Your task to perform on an android device: install app "Google Maps" Image 0: 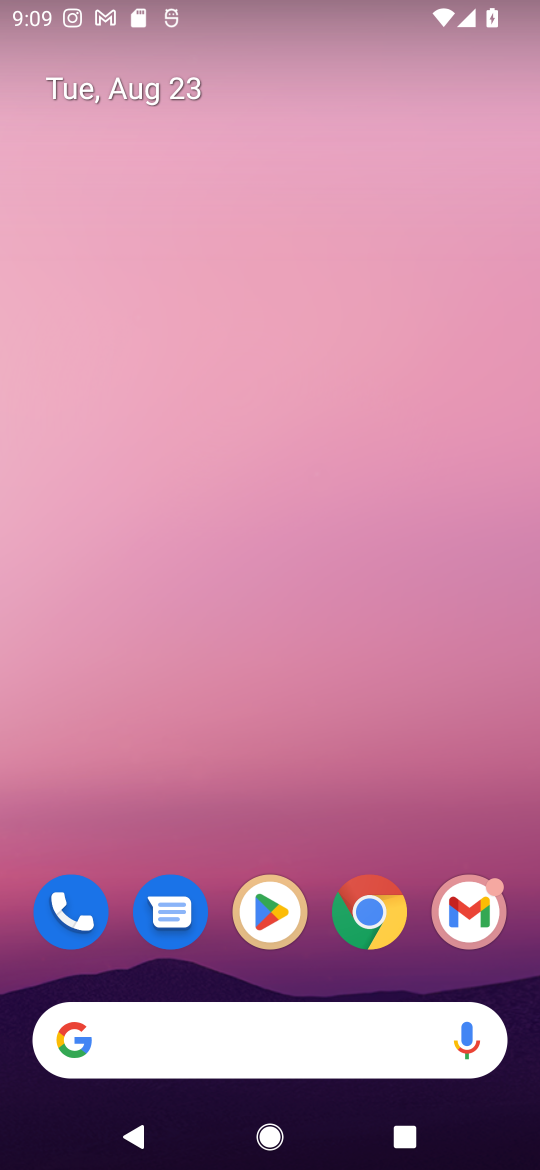
Step 0: click (263, 915)
Your task to perform on an android device: install app "Google Maps" Image 1: 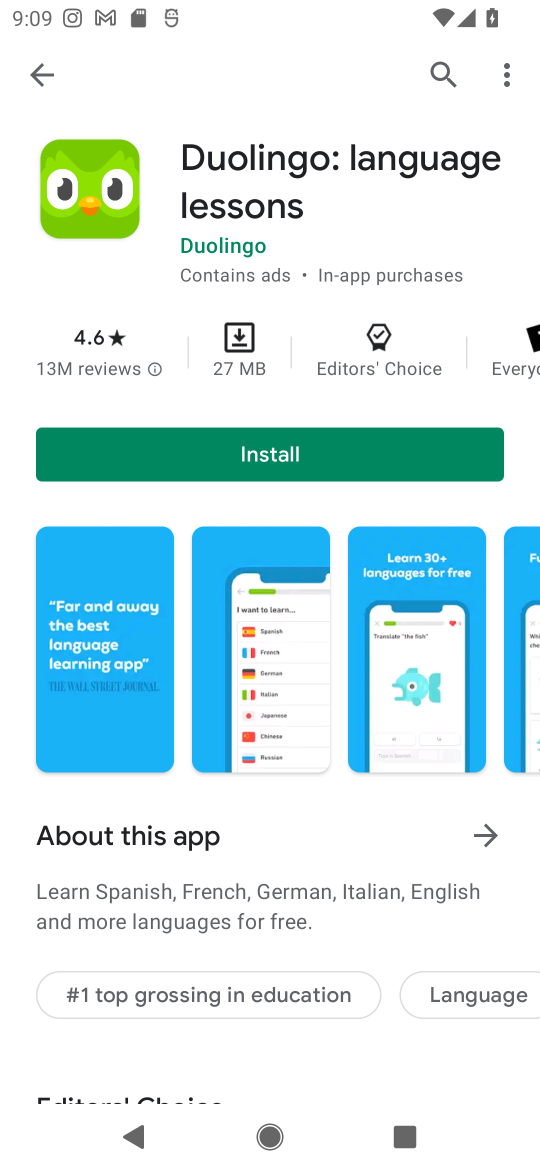
Step 1: click (444, 60)
Your task to perform on an android device: install app "Google Maps" Image 2: 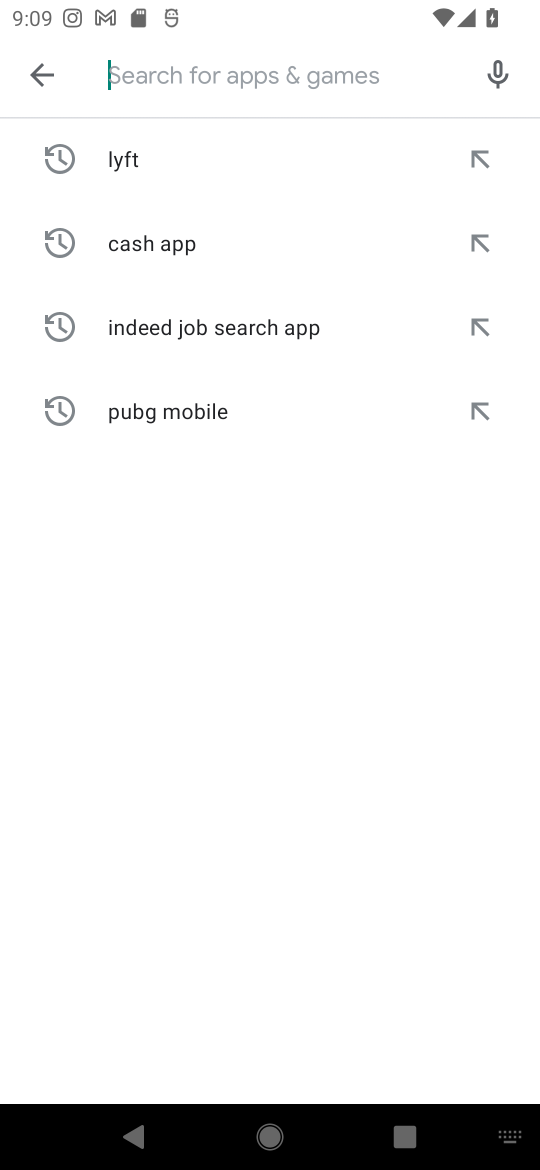
Step 2: type "Google Maps"
Your task to perform on an android device: install app "Google Maps" Image 3: 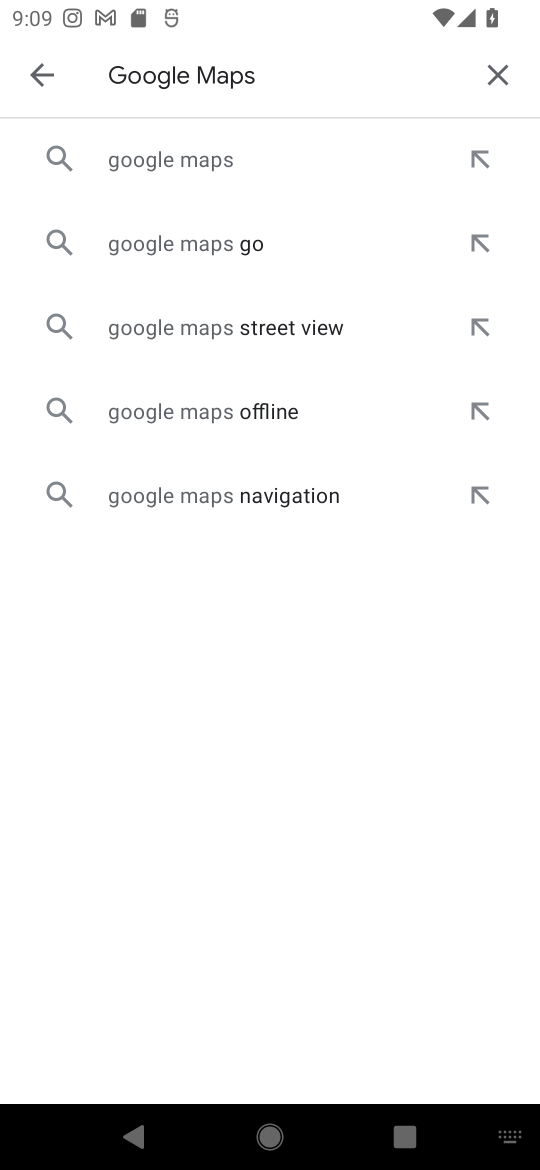
Step 3: click (185, 160)
Your task to perform on an android device: install app "Google Maps" Image 4: 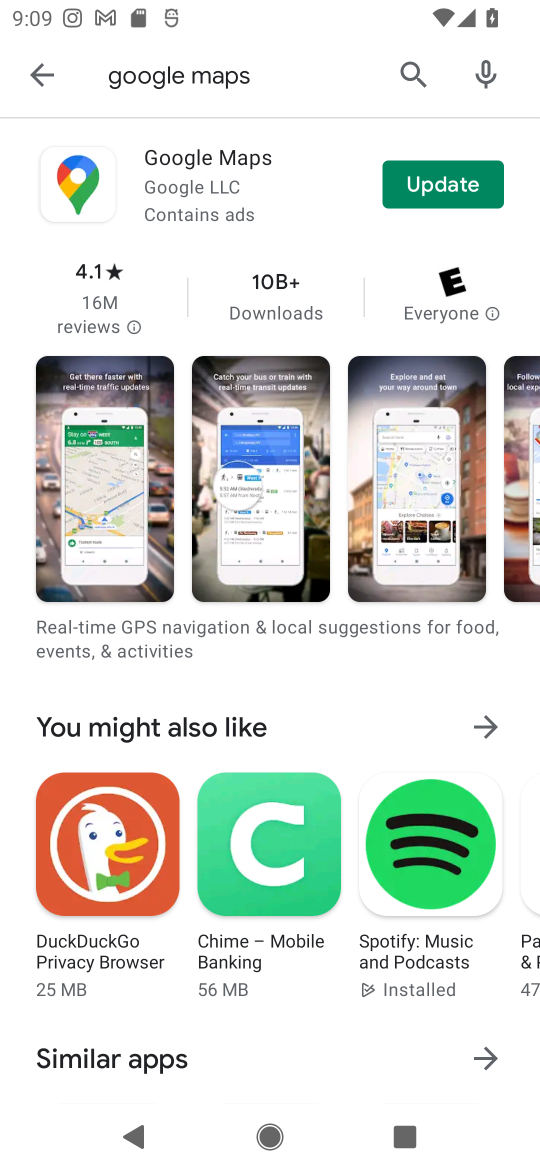
Step 4: click (179, 184)
Your task to perform on an android device: install app "Google Maps" Image 5: 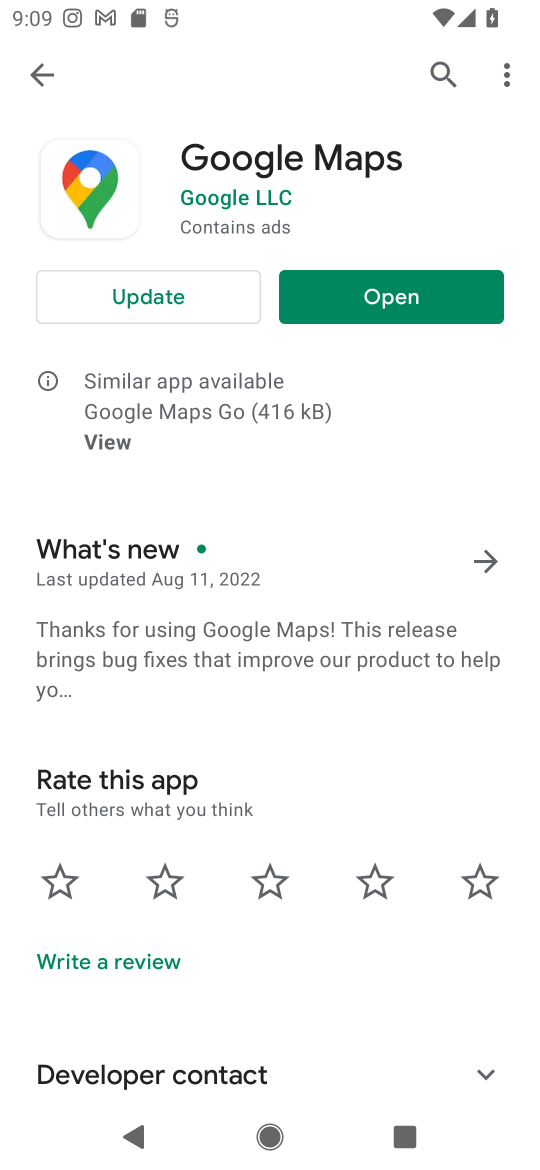
Step 5: task complete